Your task to perform on an android device: Open the calendar app, open the side menu, and click the "Day" option Image 0: 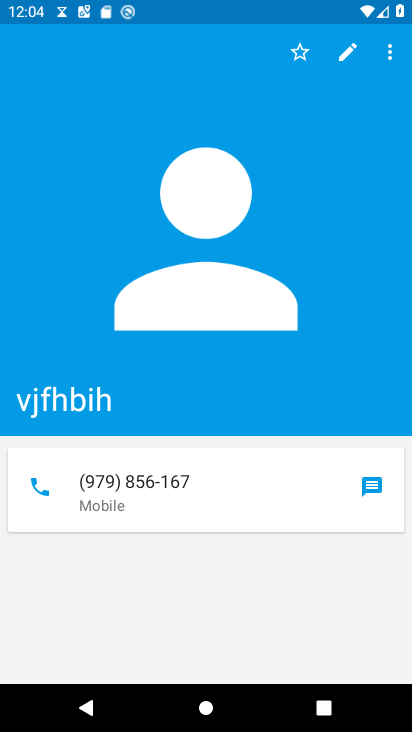
Step 0: press home button
Your task to perform on an android device: Open the calendar app, open the side menu, and click the "Day" option Image 1: 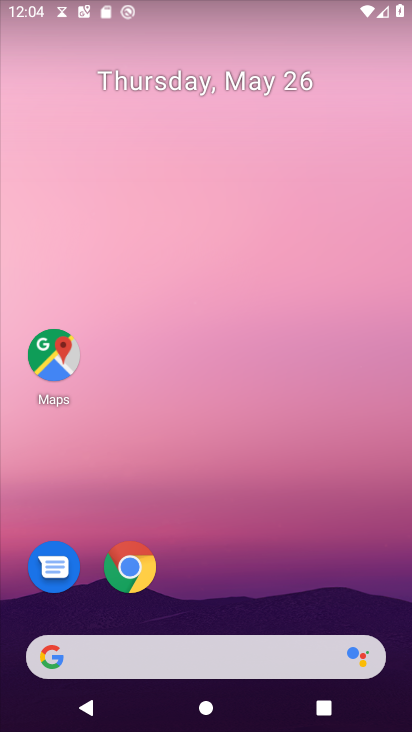
Step 1: drag from (250, 478) to (187, 57)
Your task to perform on an android device: Open the calendar app, open the side menu, and click the "Day" option Image 2: 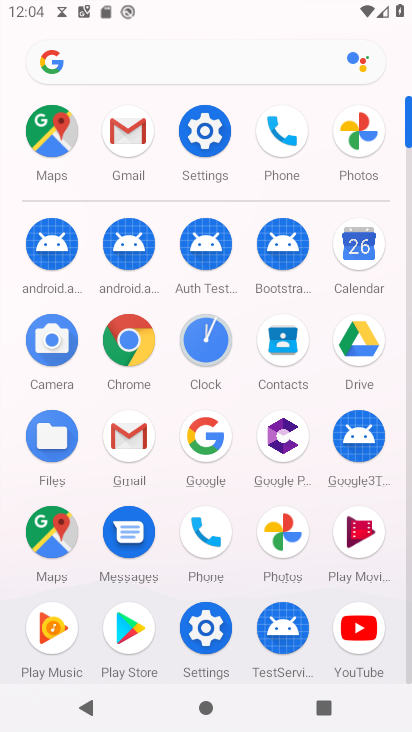
Step 2: click (361, 232)
Your task to perform on an android device: Open the calendar app, open the side menu, and click the "Day" option Image 3: 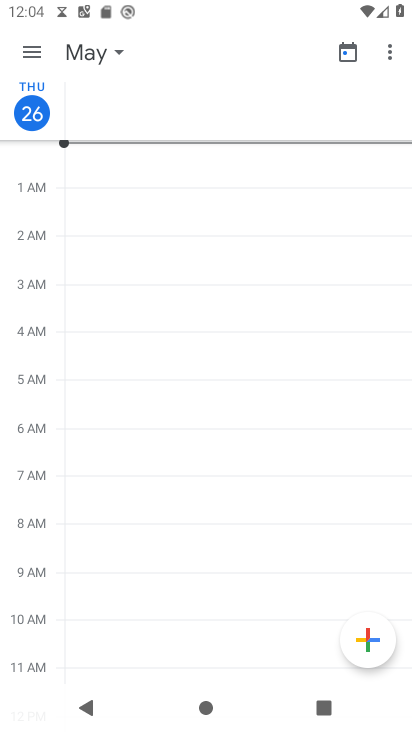
Step 3: click (23, 48)
Your task to perform on an android device: Open the calendar app, open the side menu, and click the "Day" option Image 4: 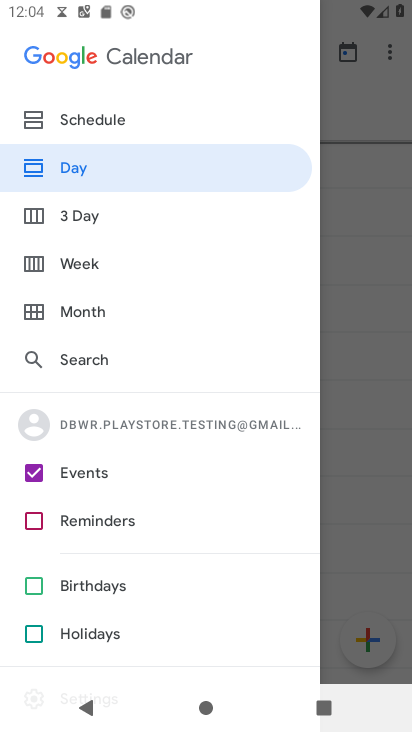
Step 4: click (60, 164)
Your task to perform on an android device: Open the calendar app, open the side menu, and click the "Day" option Image 5: 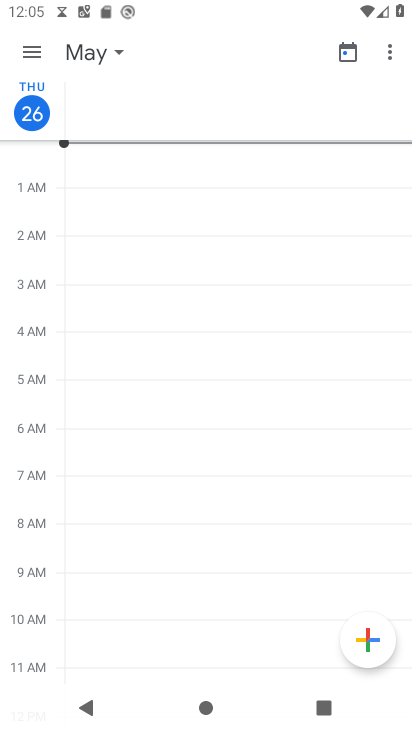
Step 5: task complete